Your task to perform on an android device: What is the recent news? Image 0: 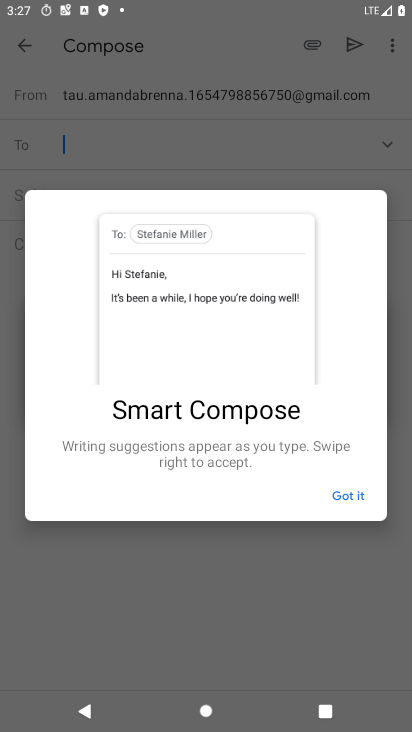
Step 0: press home button
Your task to perform on an android device: What is the recent news? Image 1: 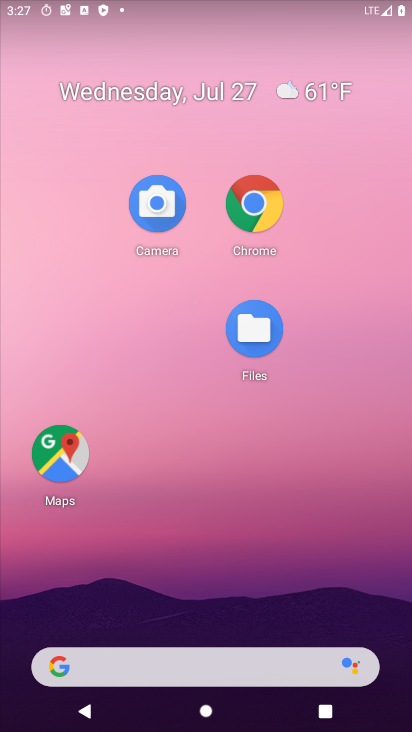
Step 1: drag from (188, 591) to (252, 188)
Your task to perform on an android device: What is the recent news? Image 2: 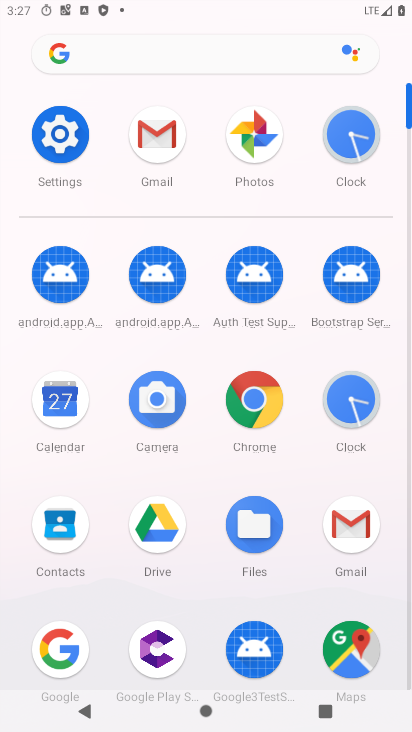
Step 2: click (77, 653)
Your task to perform on an android device: What is the recent news? Image 3: 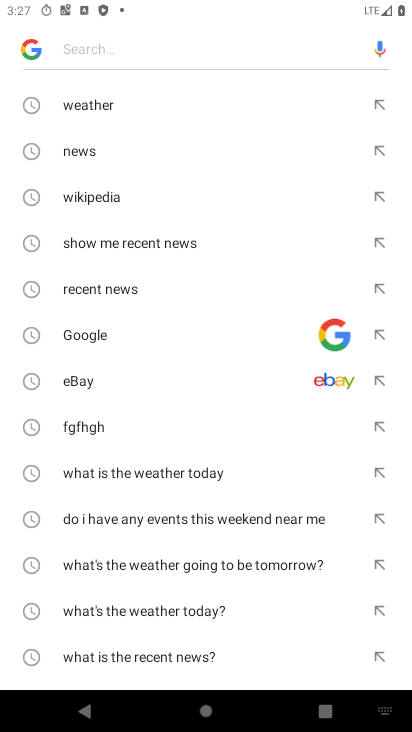
Step 3: click (123, 150)
Your task to perform on an android device: What is the recent news? Image 4: 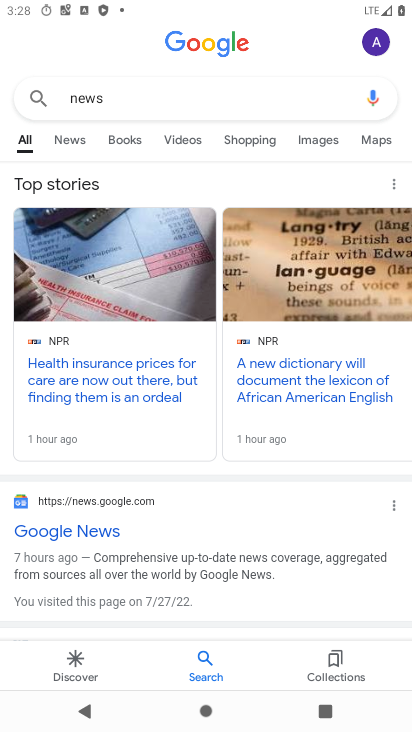
Step 4: click (50, 137)
Your task to perform on an android device: What is the recent news? Image 5: 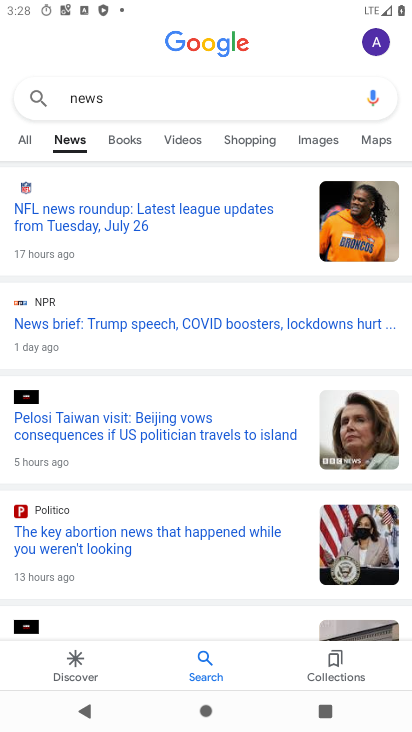
Step 5: task complete